Your task to perform on an android device: check battery use Image 0: 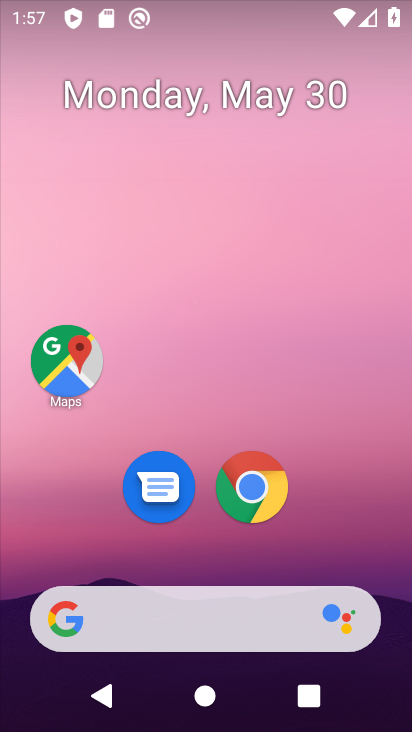
Step 0: drag from (327, 503) to (255, 99)
Your task to perform on an android device: check battery use Image 1: 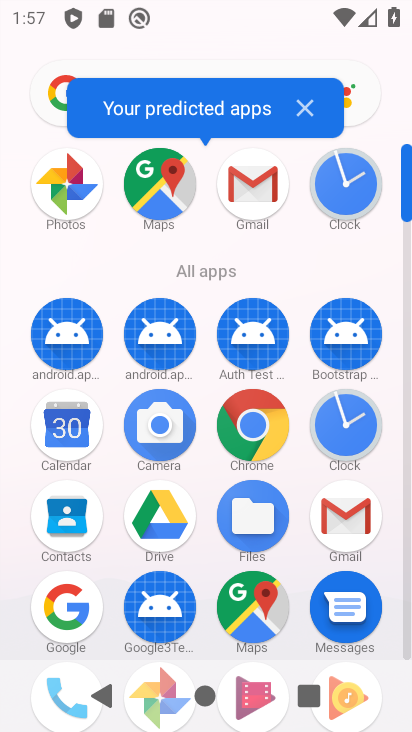
Step 1: drag from (194, 570) to (203, 250)
Your task to perform on an android device: check battery use Image 2: 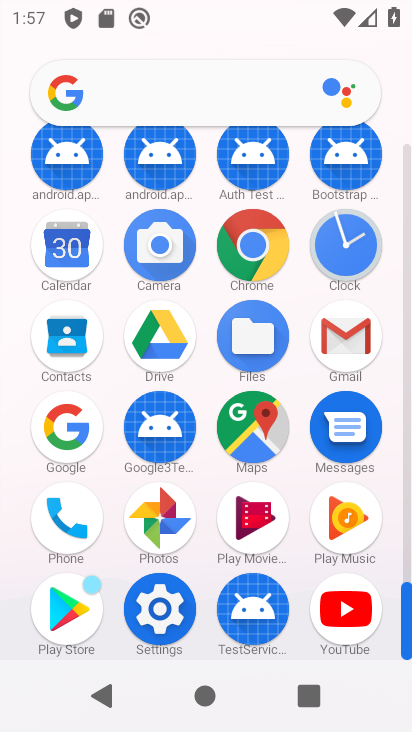
Step 2: click (168, 613)
Your task to perform on an android device: check battery use Image 3: 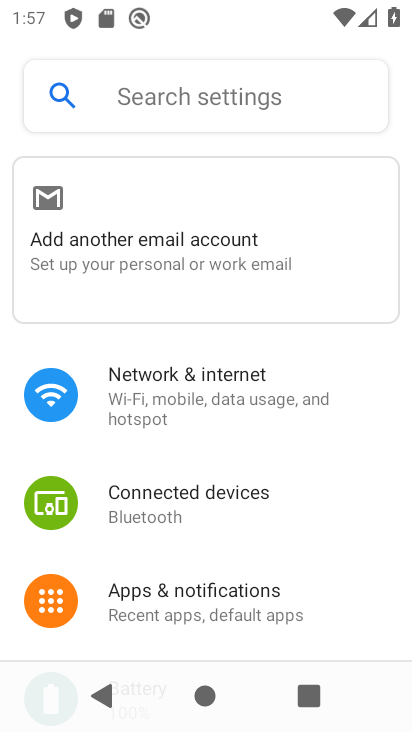
Step 3: drag from (142, 581) to (132, 235)
Your task to perform on an android device: check battery use Image 4: 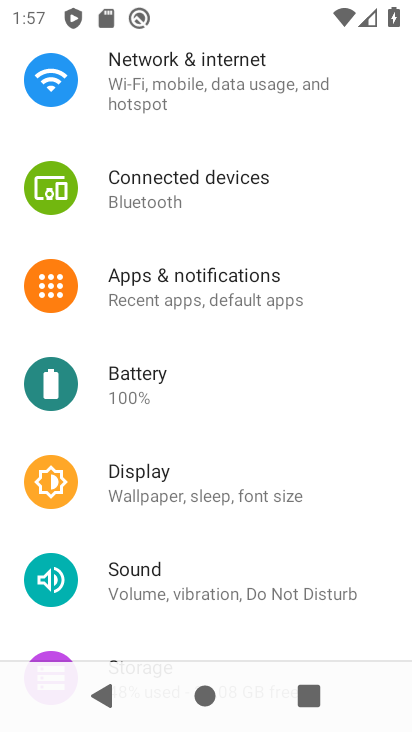
Step 4: click (151, 372)
Your task to perform on an android device: check battery use Image 5: 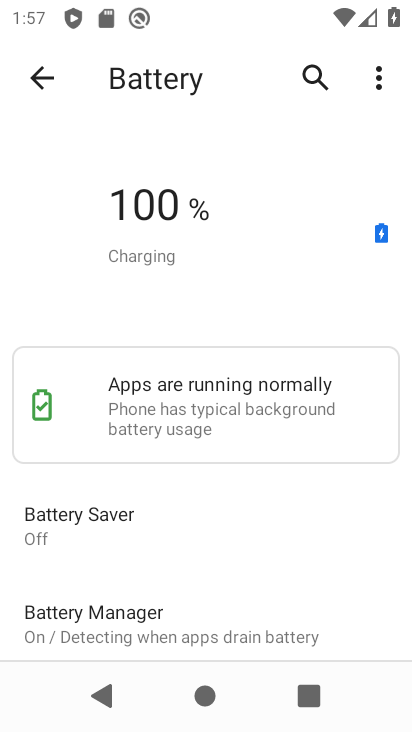
Step 5: task complete